Your task to perform on an android device: add a contact in the contacts app Image 0: 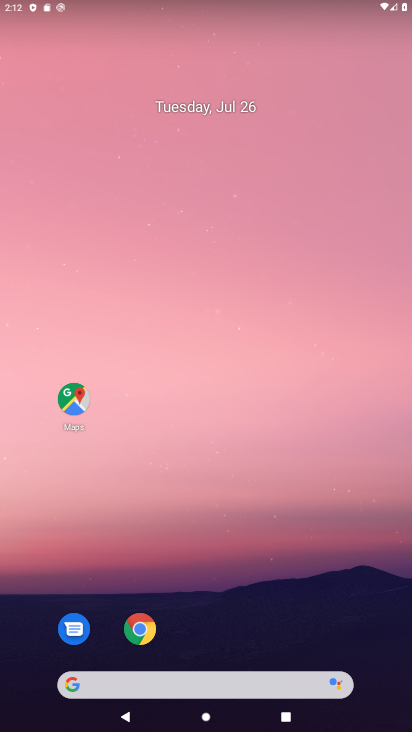
Step 0: drag from (298, 573) to (269, 118)
Your task to perform on an android device: add a contact in the contacts app Image 1: 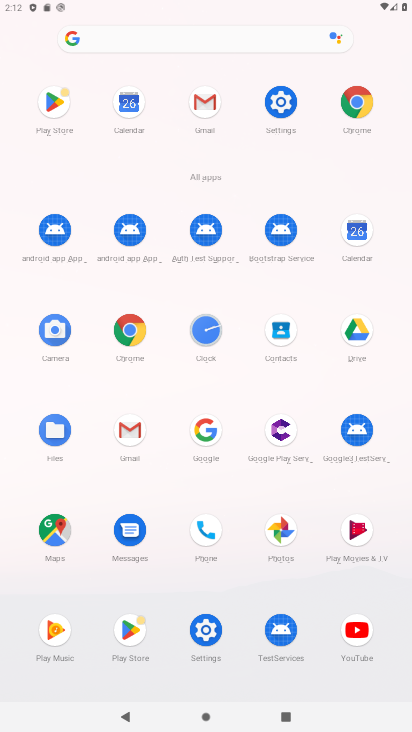
Step 1: click (277, 341)
Your task to perform on an android device: add a contact in the contacts app Image 2: 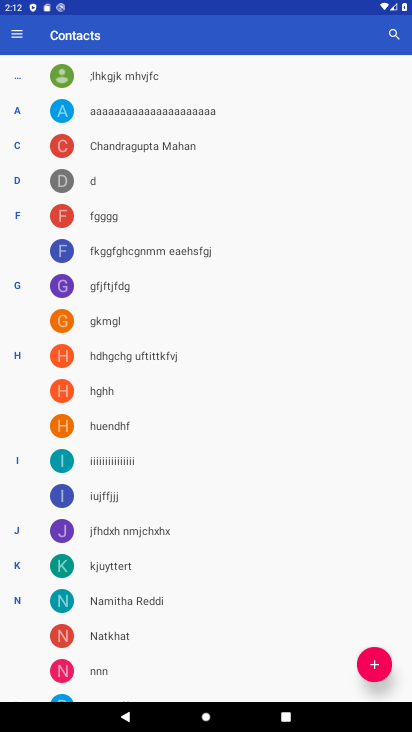
Step 2: click (368, 668)
Your task to perform on an android device: add a contact in the contacts app Image 3: 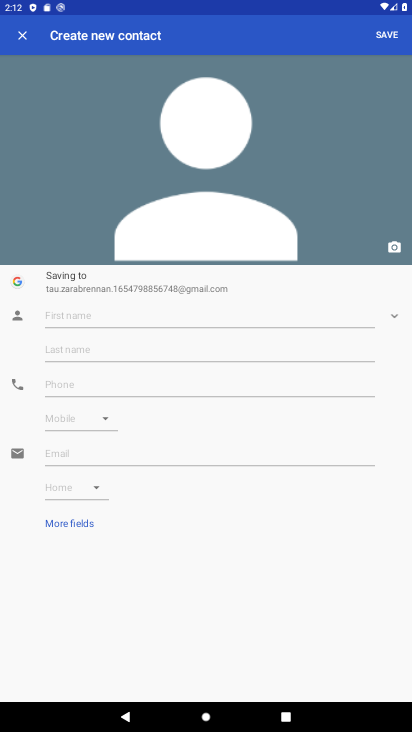
Step 3: click (224, 320)
Your task to perform on an android device: add a contact in the contacts app Image 4: 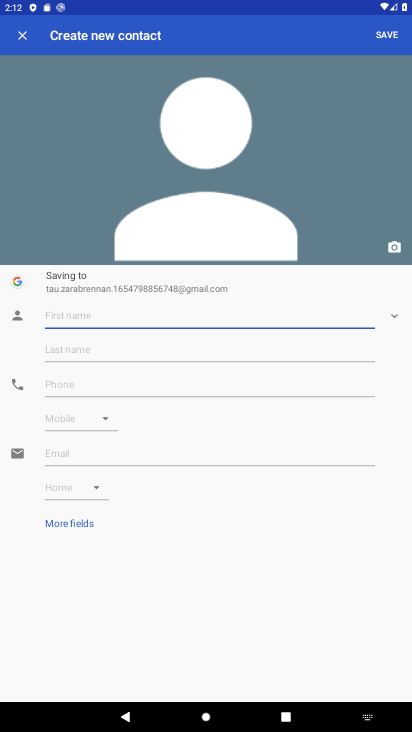
Step 4: type "bhjknm"
Your task to perform on an android device: add a contact in the contacts app Image 5: 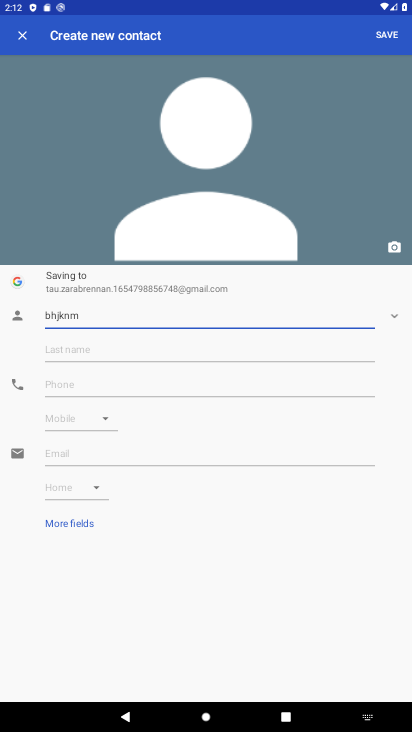
Step 5: click (125, 382)
Your task to perform on an android device: add a contact in the contacts app Image 6: 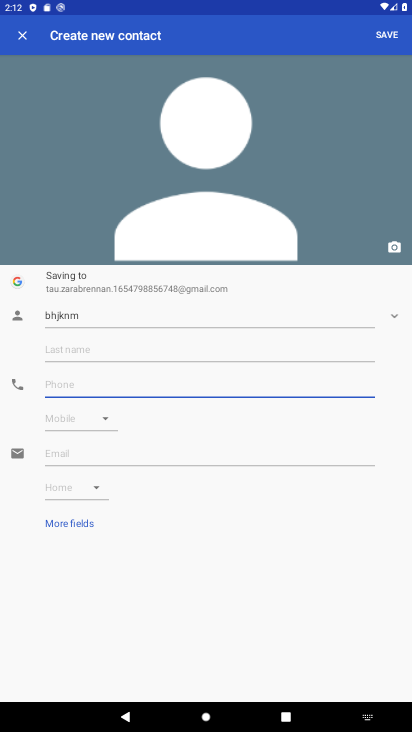
Step 6: type "898989890"
Your task to perform on an android device: add a contact in the contacts app Image 7: 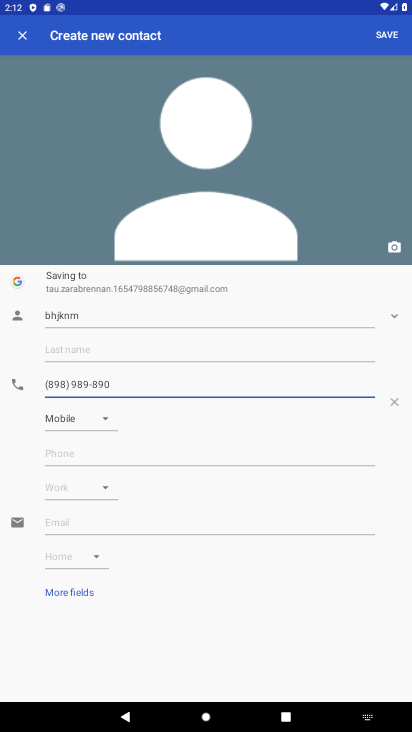
Step 7: click (385, 35)
Your task to perform on an android device: add a contact in the contacts app Image 8: 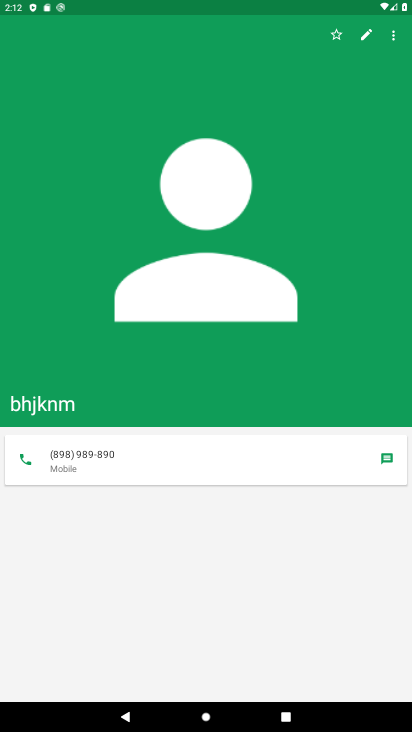
Step 8: task complete